Your task to perform on an android device: Go to Reddit.com Image 0: 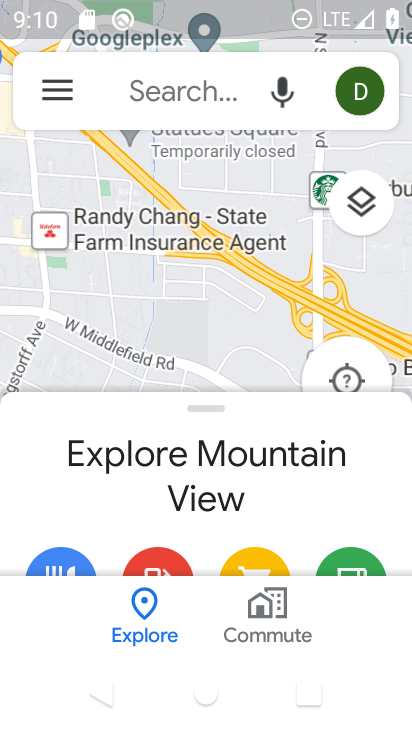
Step 0: press home button
Your task to perform on an android device: Go to Reddit.com Image 1: 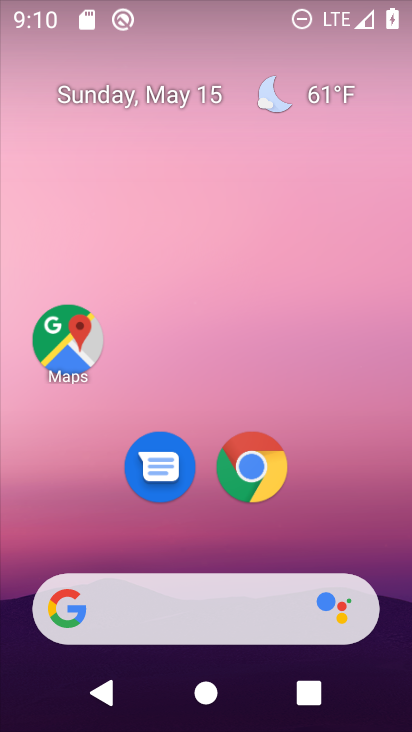
Step 1: click (188, 620)
Your task to perform on an android device: Go to Reddit.com Image 2: 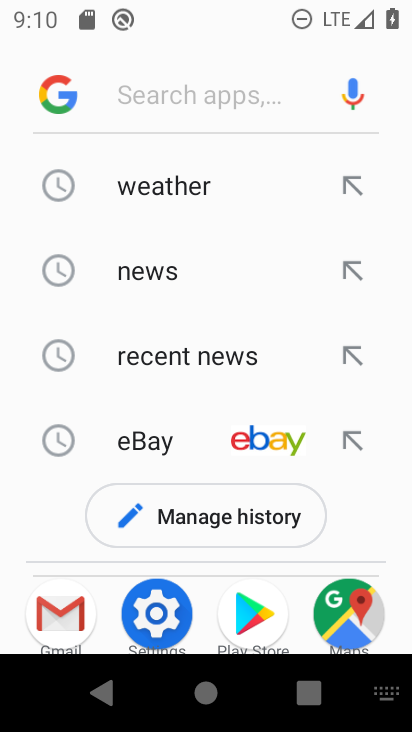
Step 2: type "reddit.com"
Your task to perform on an android device: Go to Reddit.com Image 3: 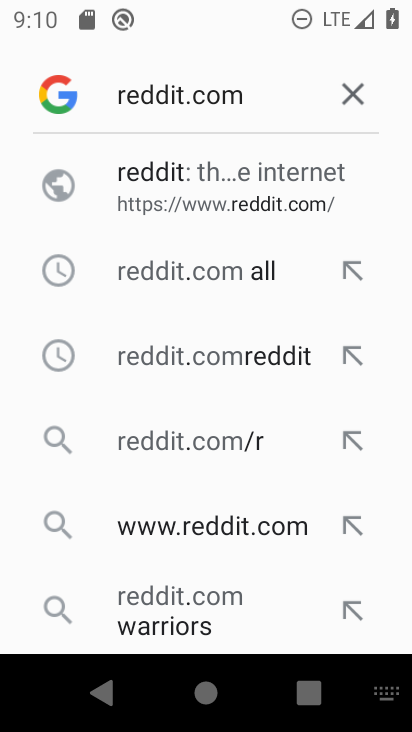
Step 3: click (271, 164)
Your task to perform on an android device: Go to Reddit.com Image 4: 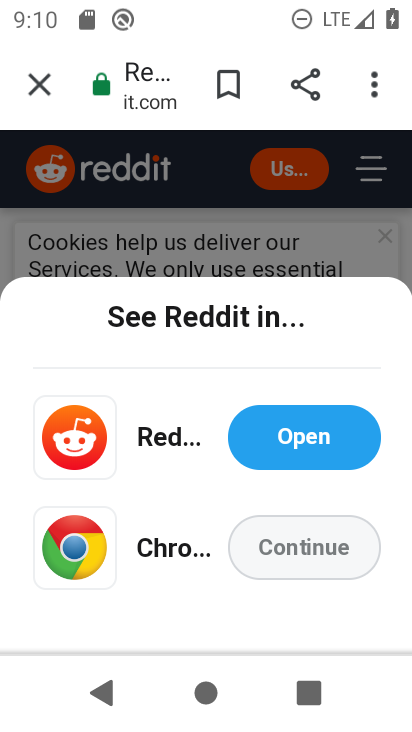
Step 4: task complete